Your task to perform on an android device: show emergency info Image 0: 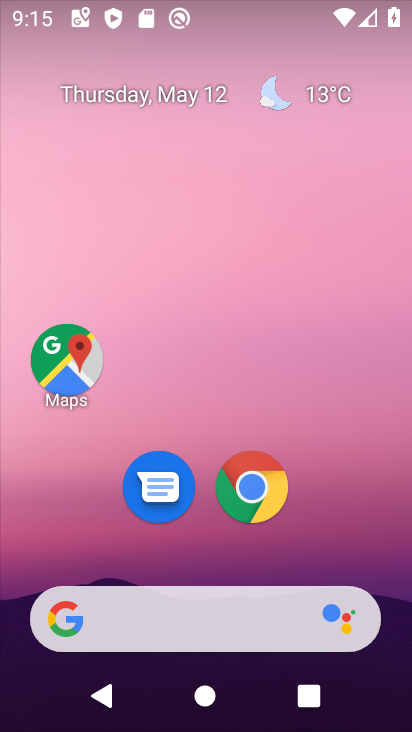
Step 0: drag from (209, 543) to (196, 254)
Your task to perform on an android device: show emergency info Image 1: 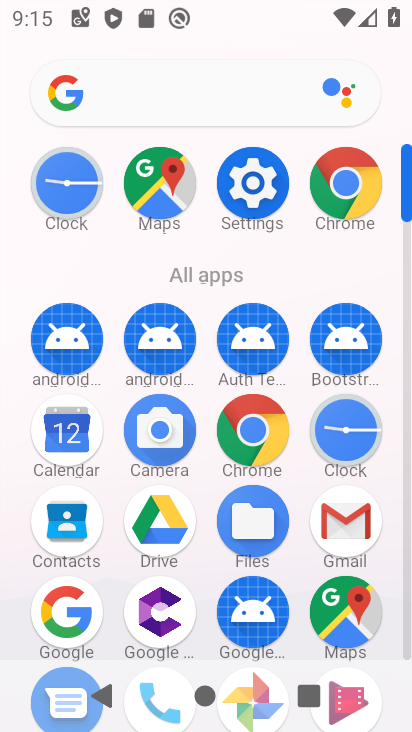
Step 1: click (246, 191)
Your task to perform on an android device: show emergency info Image 2: 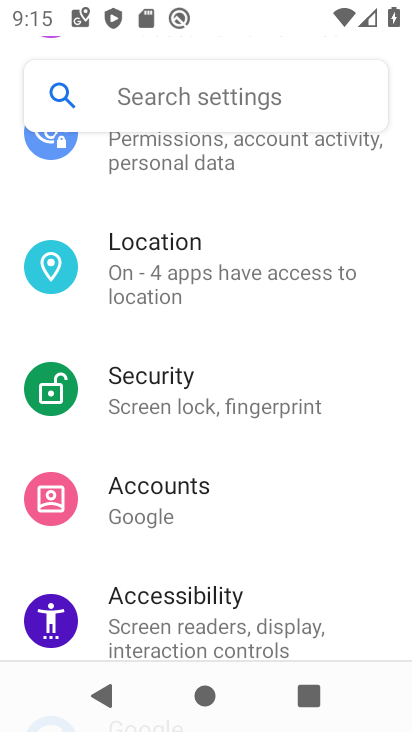
Step 2: drag from (164, 585) to (272, 194)
Your task to perform on an android device: show emergency info Image 3: 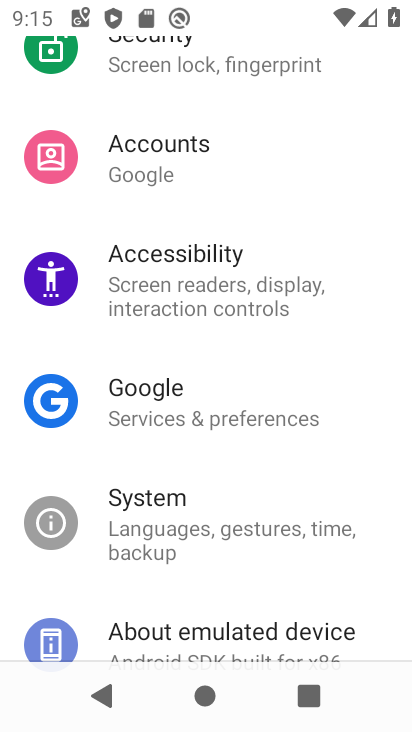
Step 3: drag from (182, 562) to (219, 193)
Your task to perform on an android device: show emergency info Image 4: 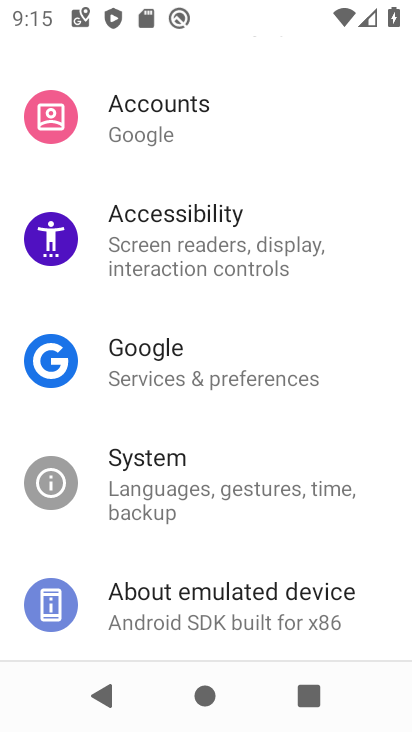
Step 4: drag from (124, 562) to (190, 103)
Your task to perform on an android device: show emergency info Image 5: 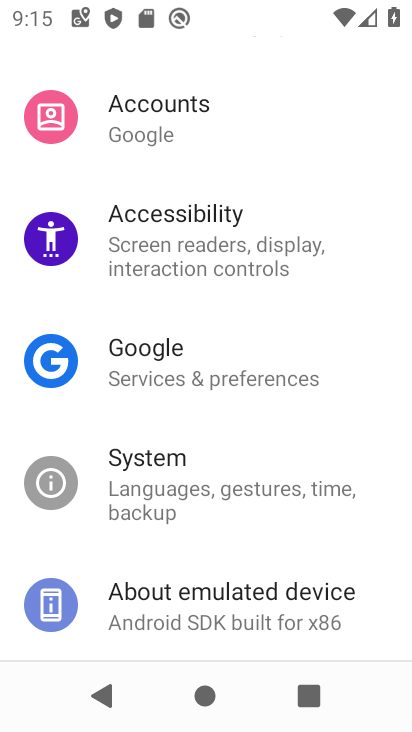
Step 5: click (187, 637)
Your task to perform on an android device: show emergency info Image 6: 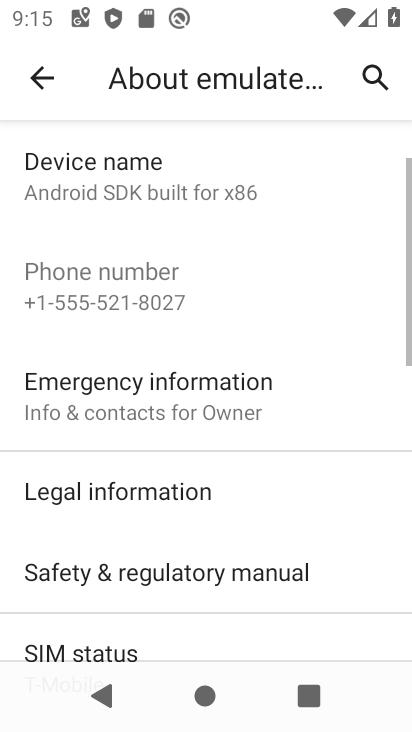
Step 6: drag from (342, 582) to (326, 351)
Your task to perform on an android device: show emergency info Image 7: 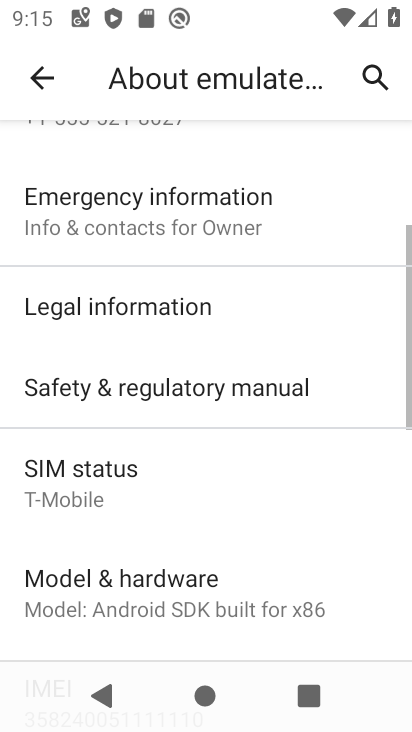
Step 7: click (269, 214)
Your task to perform on an android device: show emergency info Image 8: 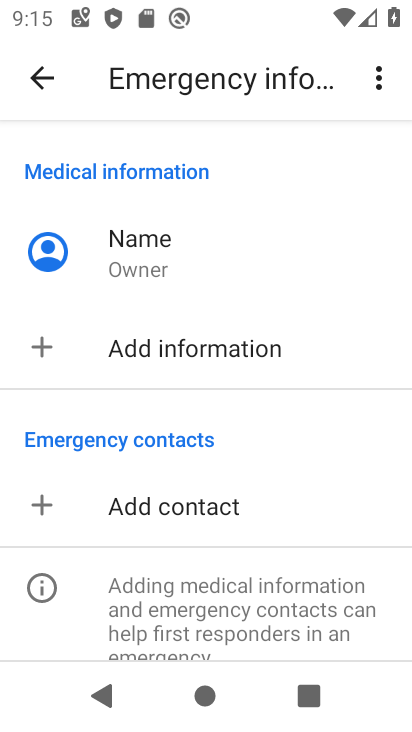
Step 8: task complete